Your task to perform on an android device: What's on my calendar today? Image 0: 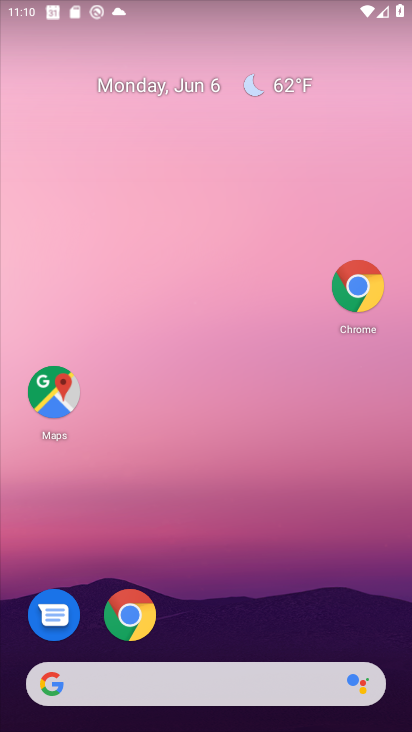
Step 0: drag from (249, 684) to (151, 103)
Your task to perform on an android device: What's on my calendar today? Image 1: 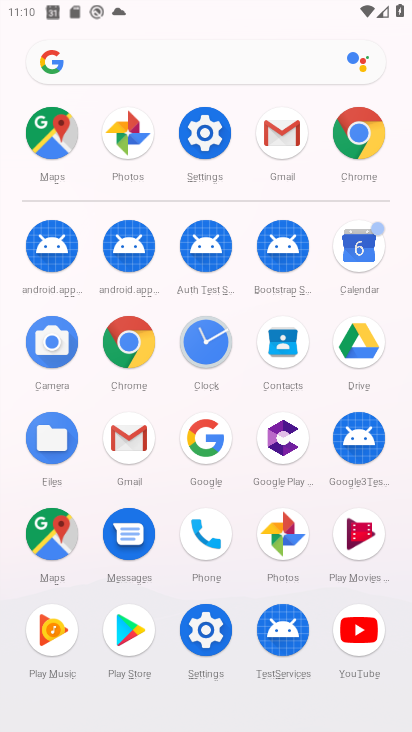
Step 1: click (366, 268)
Your task to perform on an android device: What's on my calendar today? Image 2: 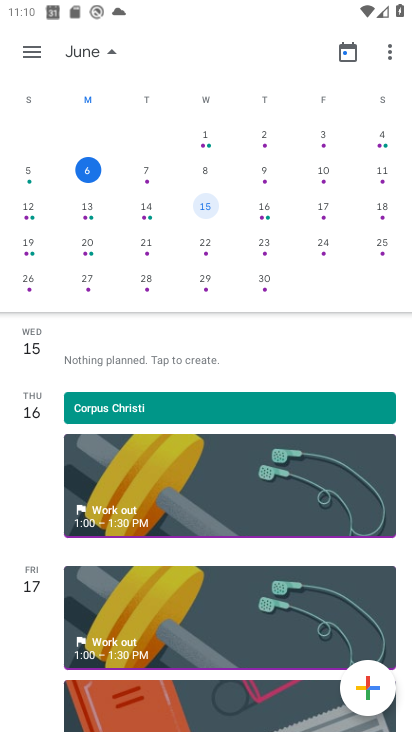
Step 2: click (152, 170)
Your task to perform on an android device: What's on my calendar today? Image 3: 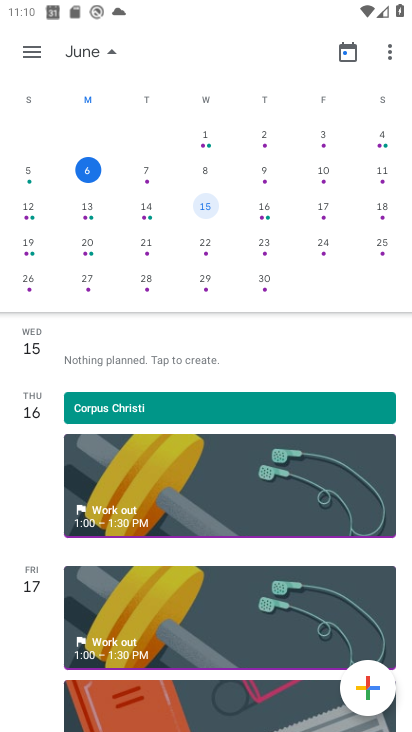
Step 3: click (151, 170)
Your task to perform on an android device: What's on my calendar today? Image 4: 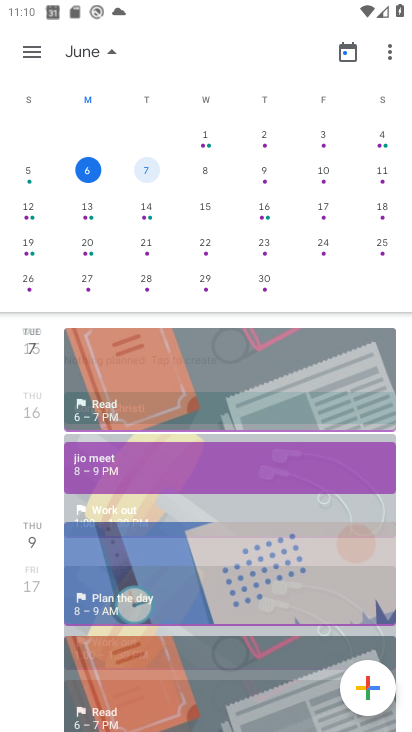
Step 4: click (150, 170)
Your task to perform on an android device: What's on my calendar today? Image 5: 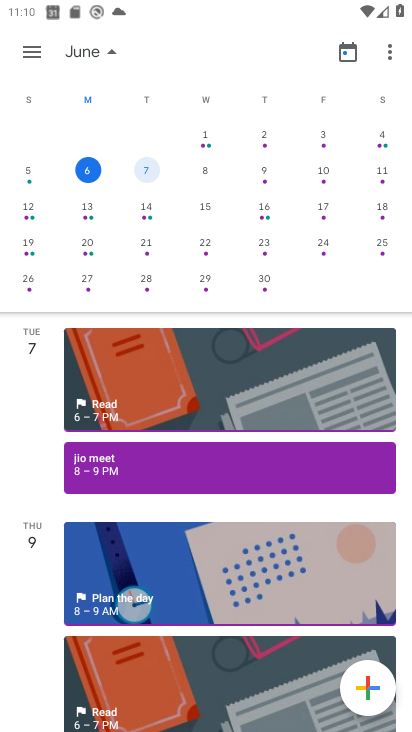
Step 5: task complete